Your task to perform on an android device: empty trash in google photos Image 0: 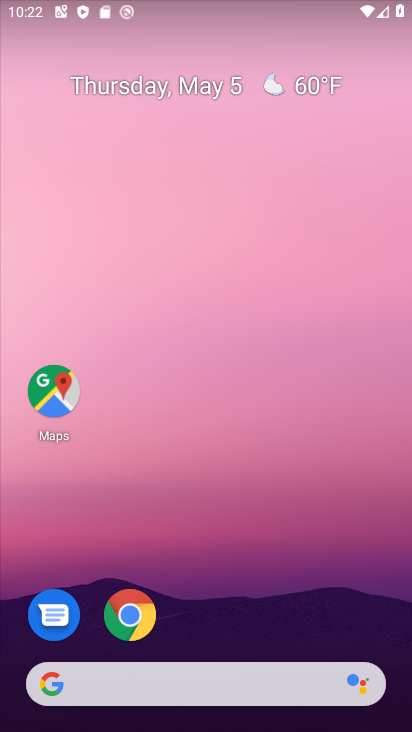
Step 0: drag from (240, 623) to (272, 78)
Your task to perform on an android device: empty trash in google photos Image 1: 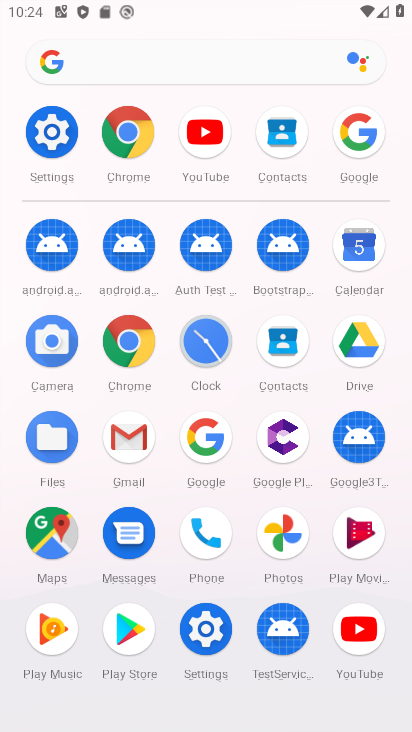
Step 1: drag from (259, 588) to (241, 272)
Your task to perform on an android device: empty trash in google photos Image 2: 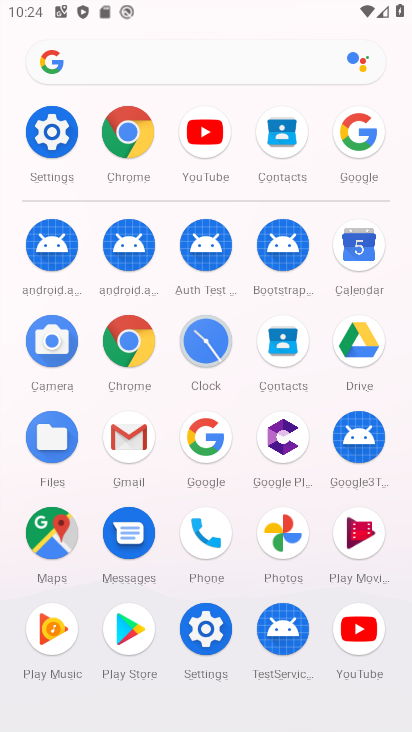
Step 2: click (286, 504)
Your task to perform on an android device: empty trash in google photos Image 3: 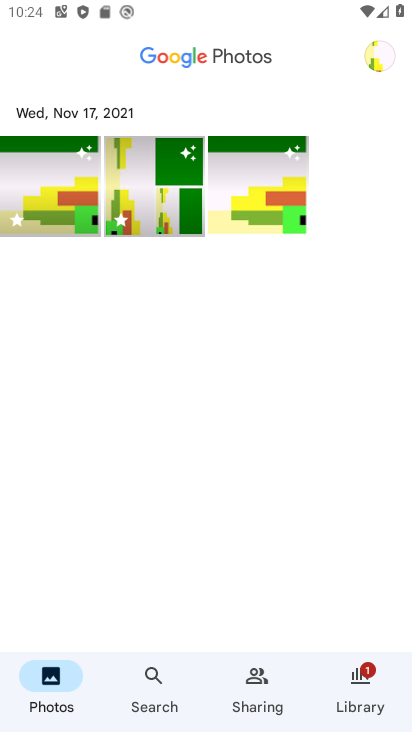
Step 3: click (377, 51)
Your task to perform on an android device: empty trash in google photos Image 4: 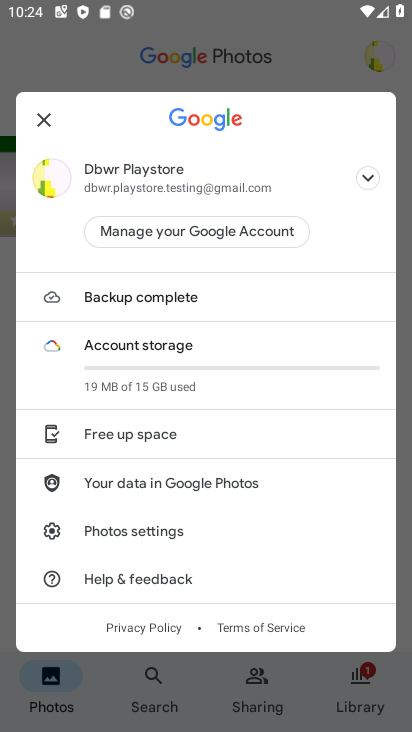
Step 4: task complete